Your task to perform on an android device: Search for vegetarian restaurants on Maps Image 0: 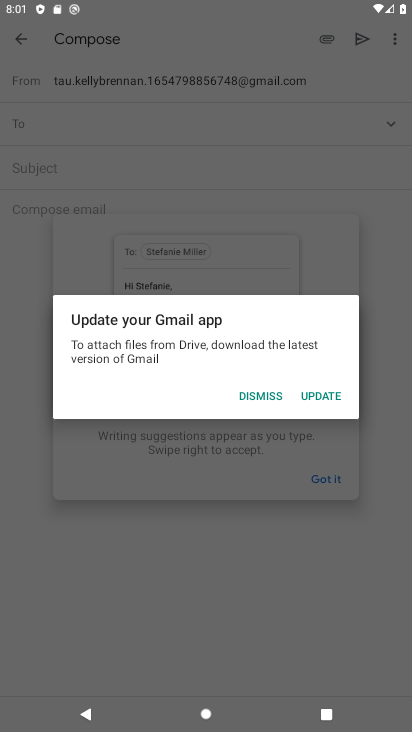
Step 0: press home button
Your task to perform on an android device: Search for vegetarian restaurants on Maps Image 1: 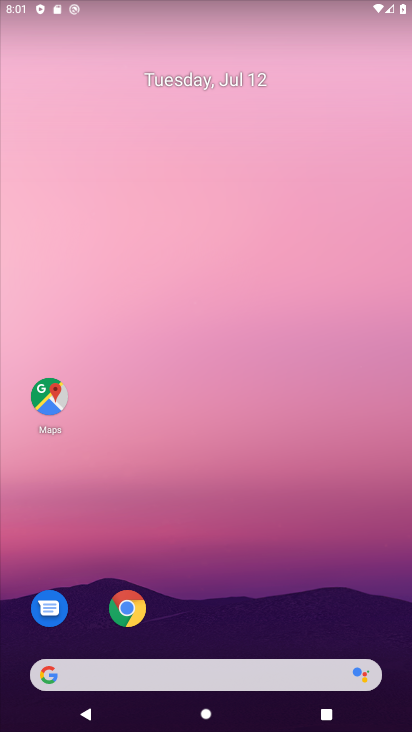
Step 1: click (35, 405)
Your task to perform on an android device: Search for vegetarian restaurants on Maps Image 2: 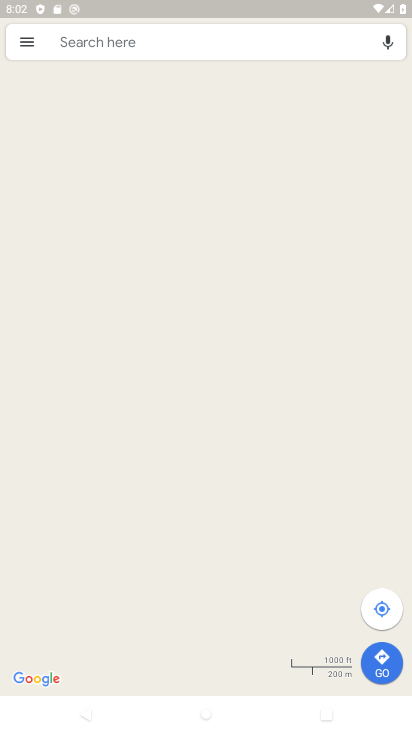
Step 2: click (163, 32)
Your task to perform on an android device: Search for vegetarian restaurants on Maps Image 3: 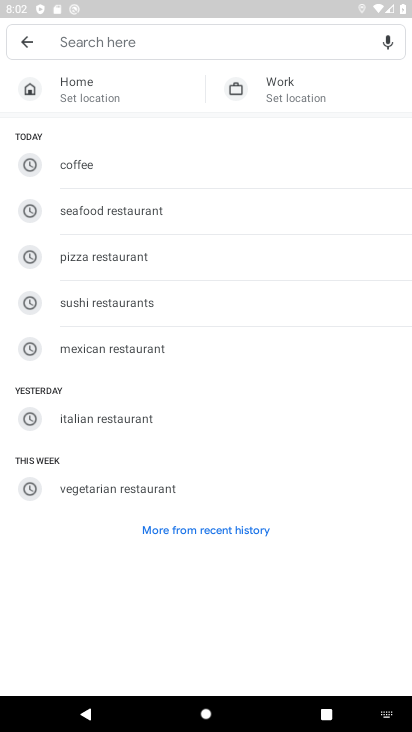
Step 3: click (144, 491)
Your task to perform on an android device: Search for vegetarian restaurants on Maps Image 4: 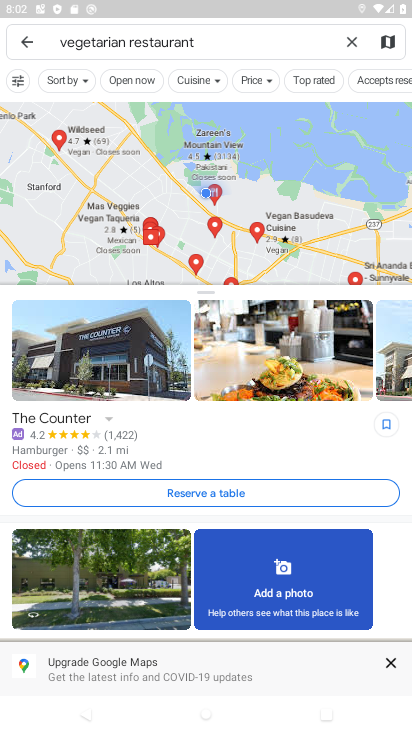
Step 4: task complete